Your task to perform on an android device: Add "logitech g pro" to the cart on bestbuy.com, then select checkout. Image 0: 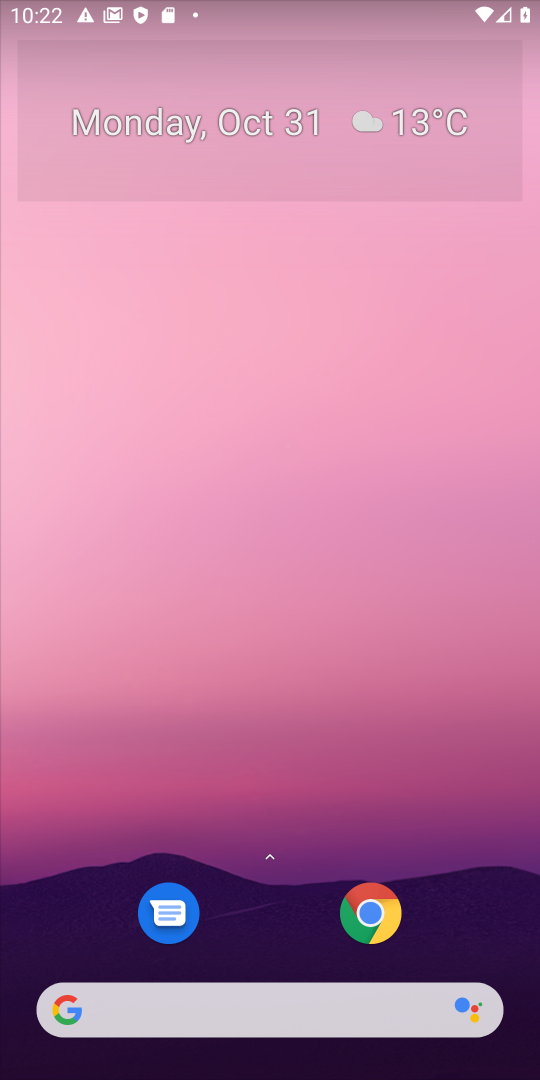
Step 0: click (211, 1015)
Your task to perform on an android device: Add "logitech g pro" to the cart on bestbuy.com, then select checkout. Image 1: 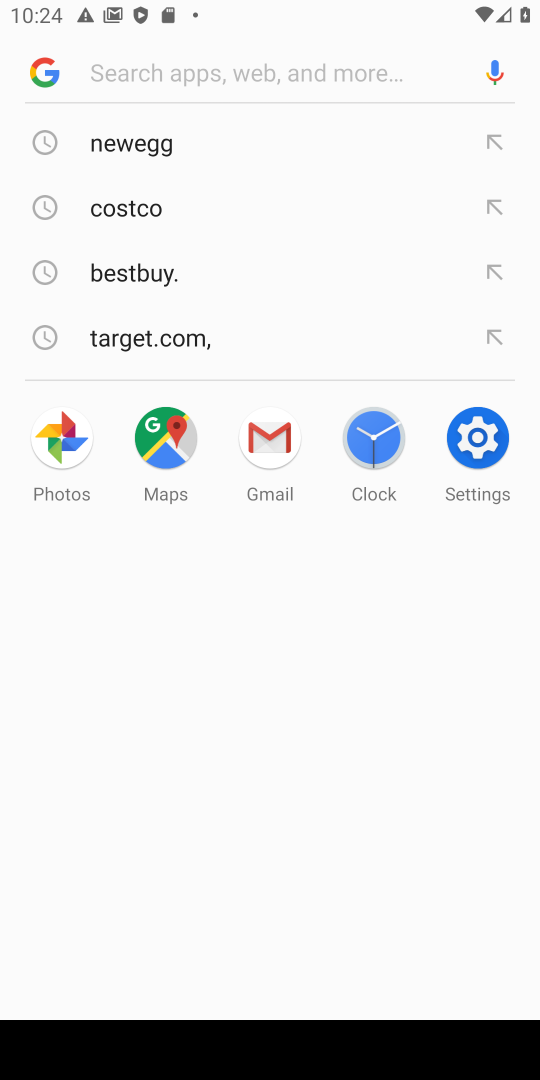
Step 1: click (110, 154)
Your task to perform on an android device: Add "logitech g pro" to the cart on bestbuy.com, then select checkout. Image 2: 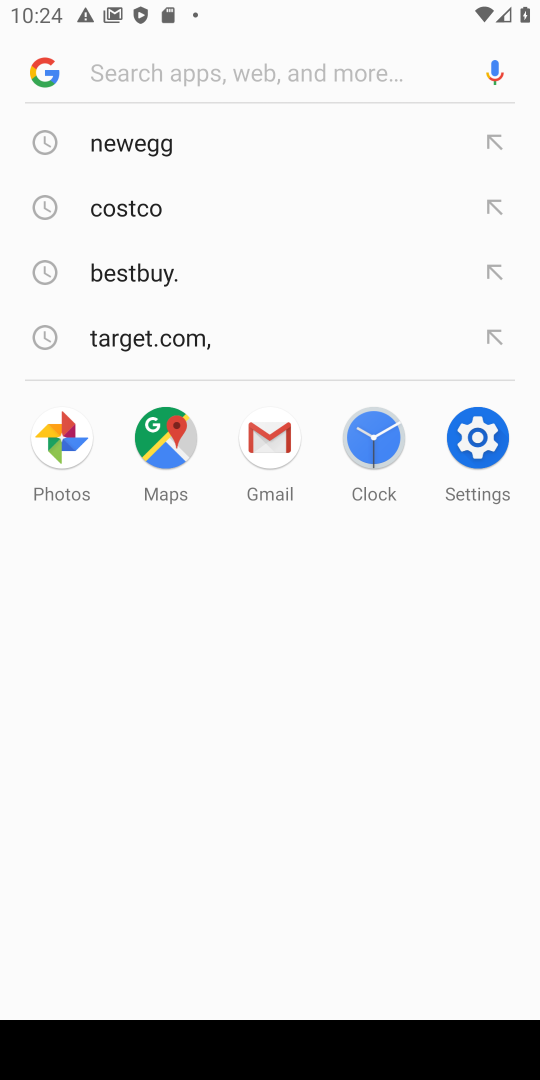
Step 2: task complete